Your task to perform on an android device: Go to display settings Image 0: 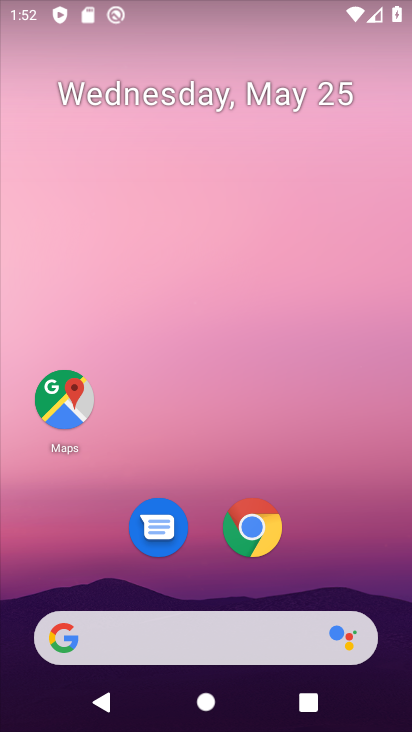
Step 0: drag from (203, 515) to (283, 95)
Your task to perform on an android device: Go to display settings Image 1: 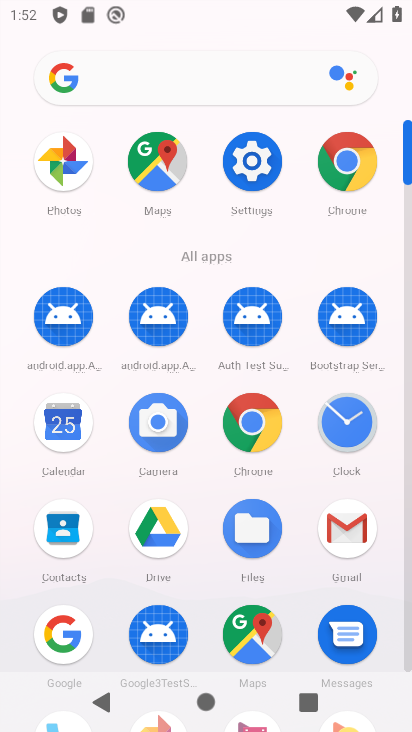
Step 1: click (252, 151)
Your task to perform on an android device: Go to display settings Image 2: 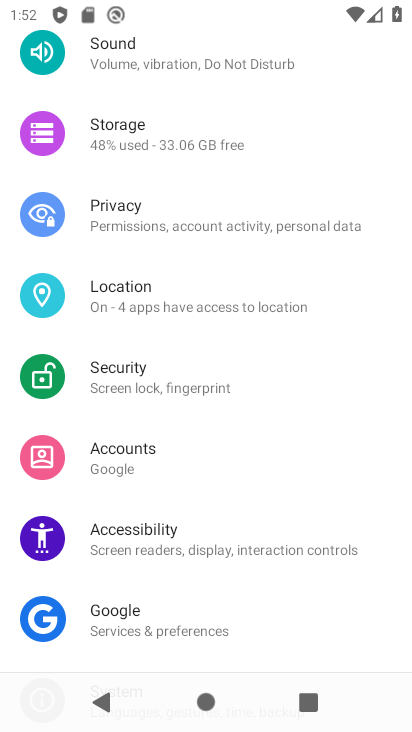
Step 2: drag from (167, 178) to (323, 538)
Your task to perform on an android device: Go to display settings Image 3: 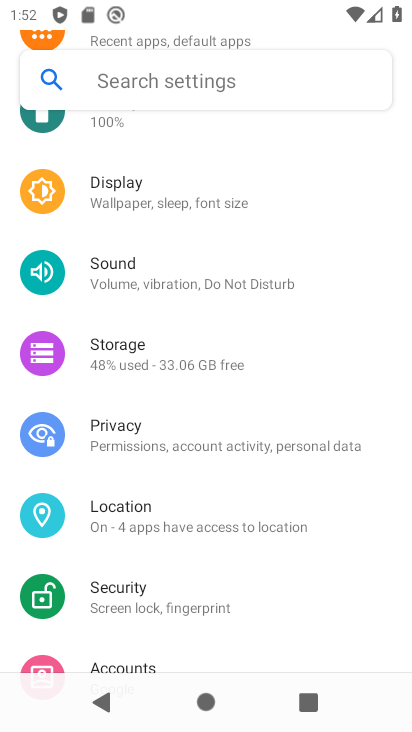
Step 3: click (133, 197)
Your task to perform on an android device: Go to display settings Image 4: 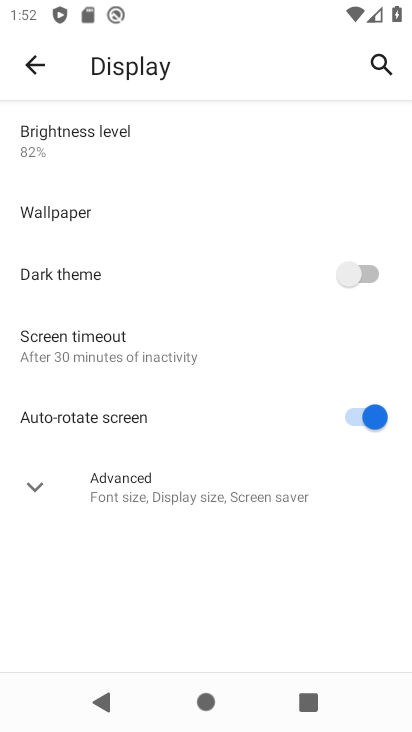
Step 4: task complete